Your task to perform on an android device: turn off sleep mode Image 0: 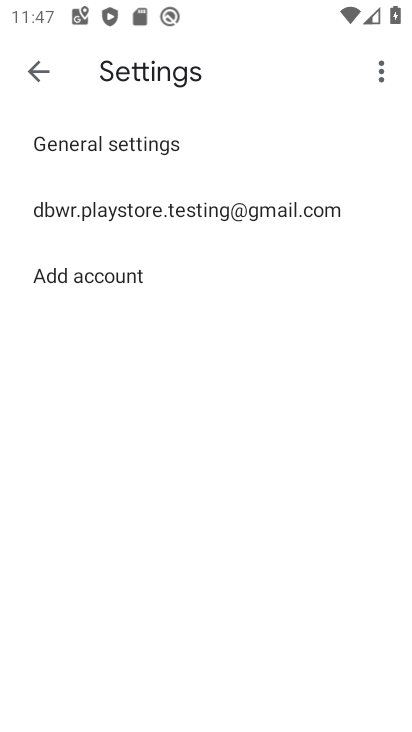
Step 0: press home button
Your task to perform on an android device: turn off sleep mode Image 1: 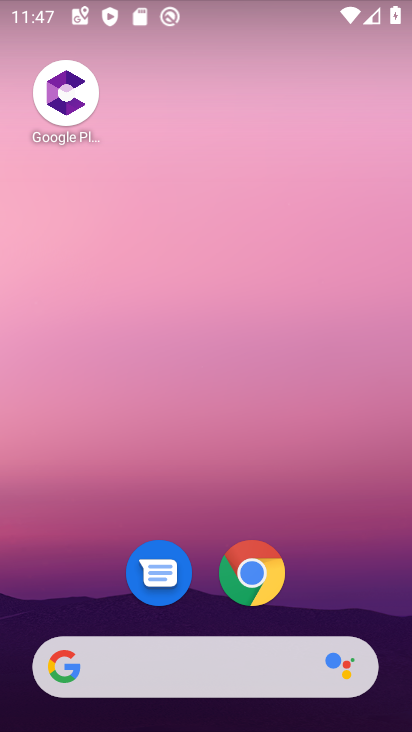
Step 1: drag from (223, 97) to (229, 0)
Your task to perform on an android device: turn off sleep mode Image 2: 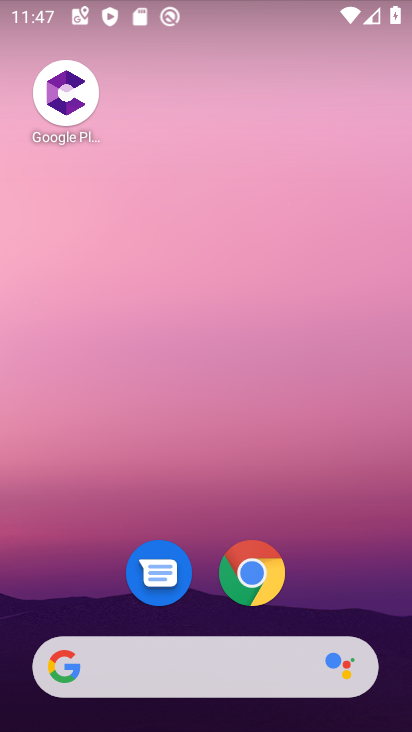
Step 2: drag from (212, 507) to (161, 24)
Your task to perform on an android device: turn off sleep mode Image 3: 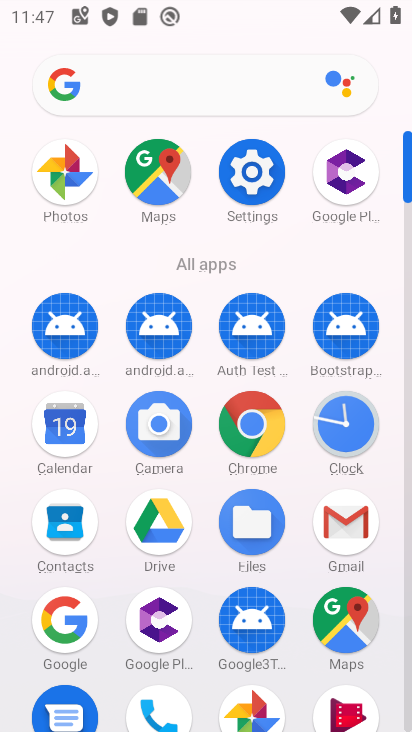
Step 3: click (266, 268)
Your task to perform on an android device: turn off sleep mode Image 4: 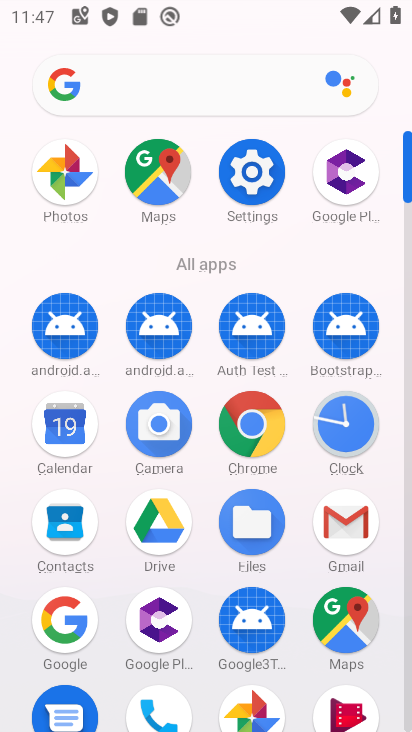
Step 4: click (260, 197)
Your task to perform on an android device: turn off sleep mode Image 5: 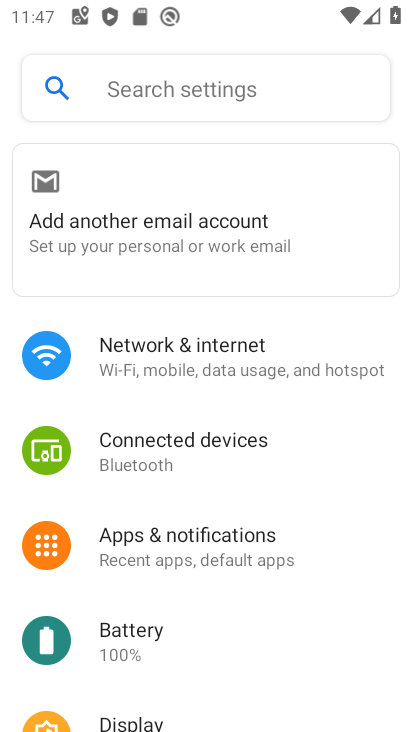
Step 5: click (208, 93)
Your task to perform on an android device: turn off sleep mode Image 6: 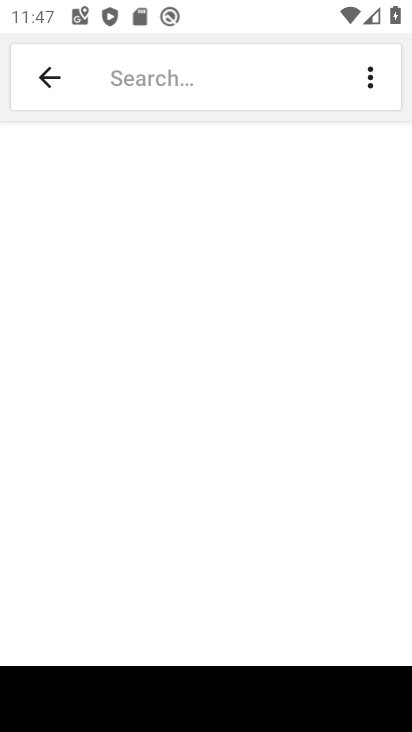
Step 6: type "sleep mode"
Your task to perform on an android device: turn off sleep mode Image 7: 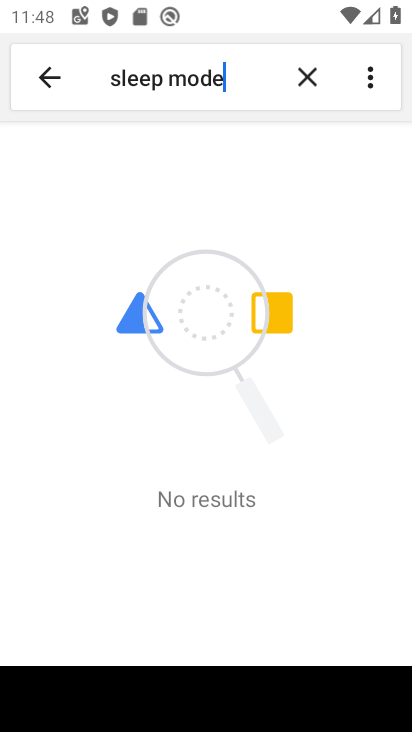
Step 7: task complete